Your task to perform on an android device: Open Yahoo.com Image 0: 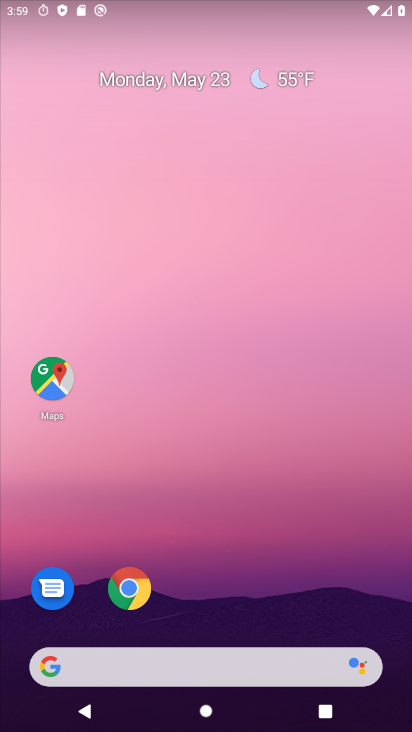
Step 0: drag from (221, 580) to (234, 108)
Your task to perform on an android device: Open Yahoo.com Image 1: 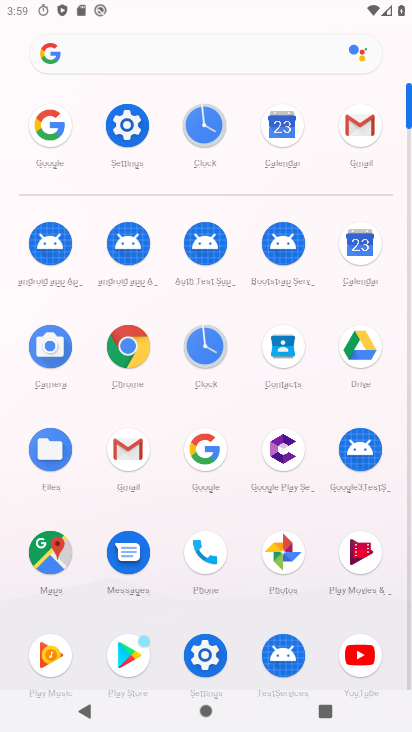
Step 1: click (130, 352)
Your task to perform on an android device: Open Yahoo.com Image 2: 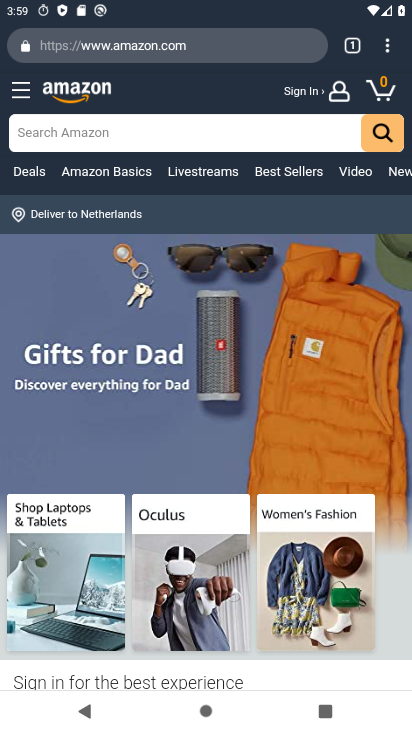
Step 2: press back button
Your task to perform on an android device: Open Yahoo.com Image 3: 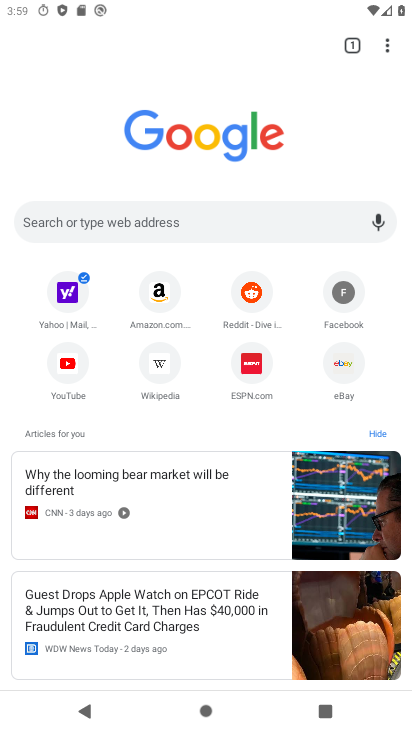
Step 3: click (62, 297)
Your task to perform on an android device: Open Yahoo.com Image 4: 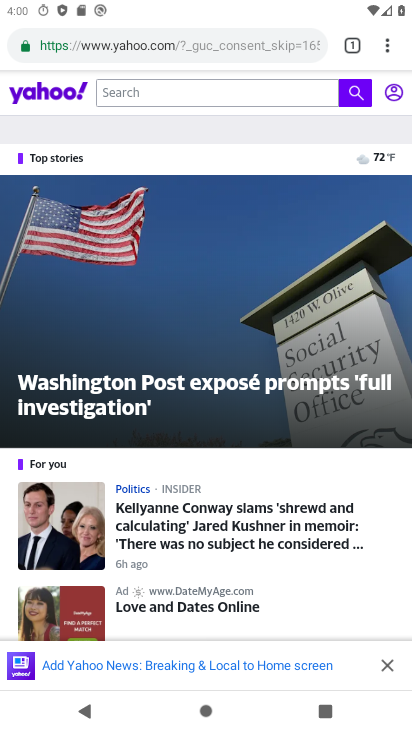
Step 4: task complete